Your task to perform on an android device: change alarm snooze length Image 0: 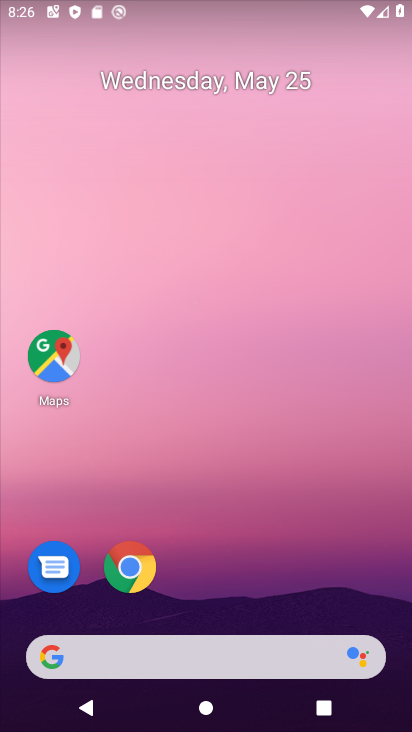
Step 0: drag from (246, 530) to (253, 32)
Your task to perform on an android device: change alarm snooze length Image 1: 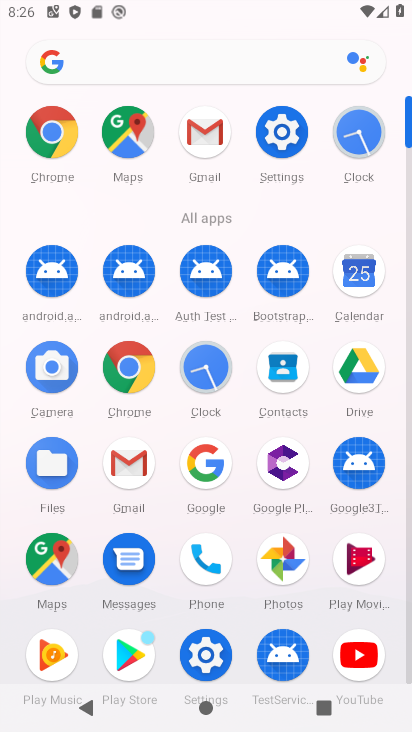
Step 1: click (361, 130)
Your task to perform on an android device: change alarm snooze length Image 2: 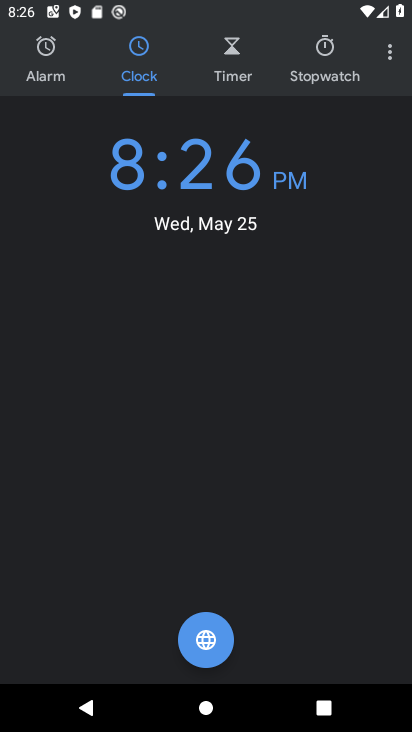
Step 2: click (386, 56)
Your task to perform on an android device: change alarm snooze length Image 3: 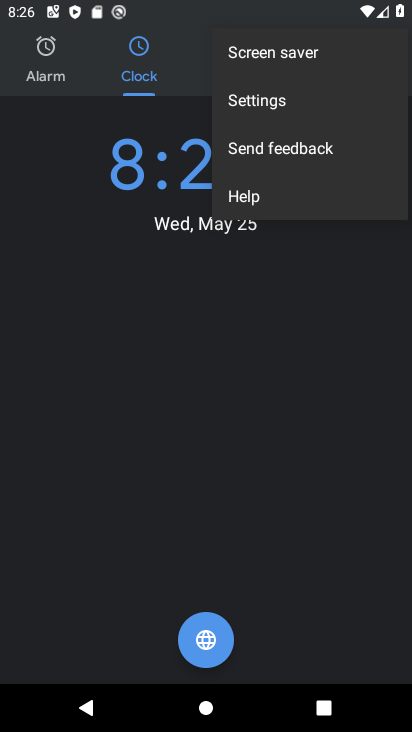
Step 3: click (285, 107)
Your task to perform on an android device: change alarm snooze length Image 4: 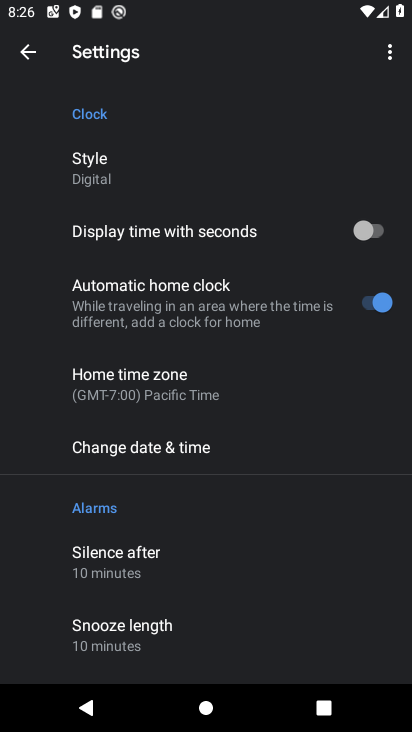
Step 4: click (156, 631)
Your task to perform on an android device: change alarm snooze length Image 5: 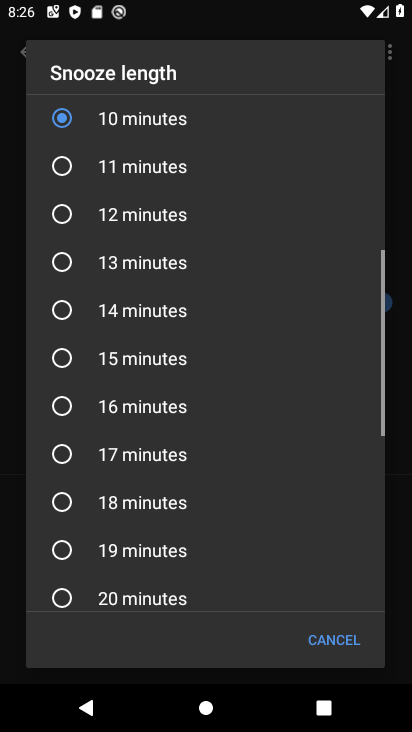
Step 5: click (105, 201)
Your task to perform on an android device: change alarm snooze length Image 6: 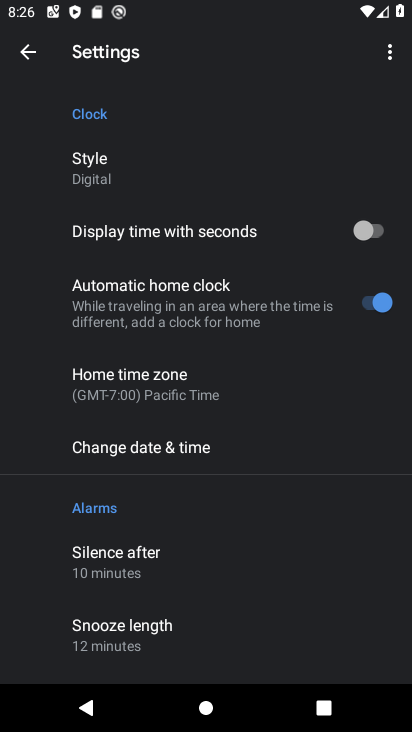
Step 6: task complete